Your task to perform on an android device: Go to Reddit.com Image 0: 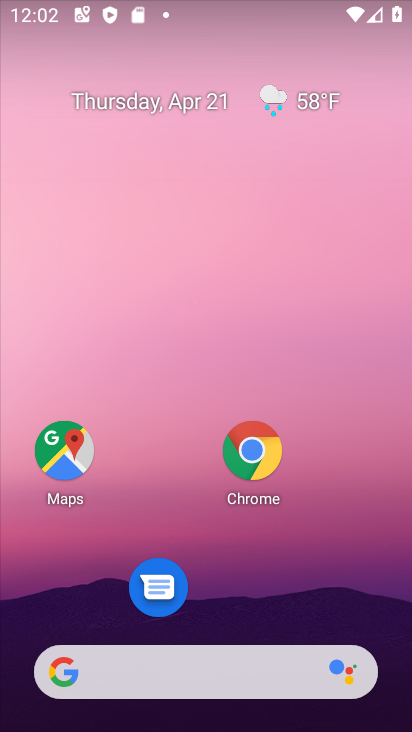
Step 0: click (149, 676)
Your task to perform on an android device: Go to Reddit.com Image 1: 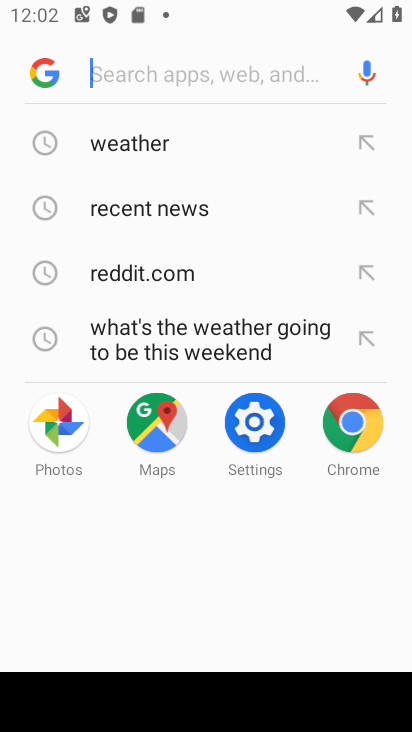
Step 1: click (294, 255)
Your task to perform on an android device: Go to Reddit.com Image 2: 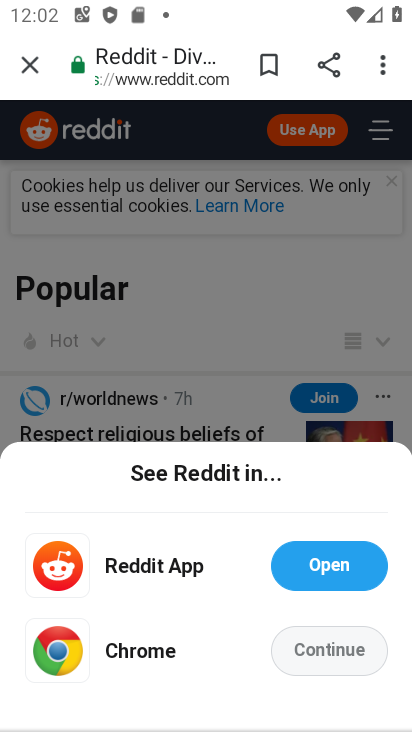
Step 2: task complete